Your task to perform on an android device: Search for a small bookcase on Ikea.com Image 0: 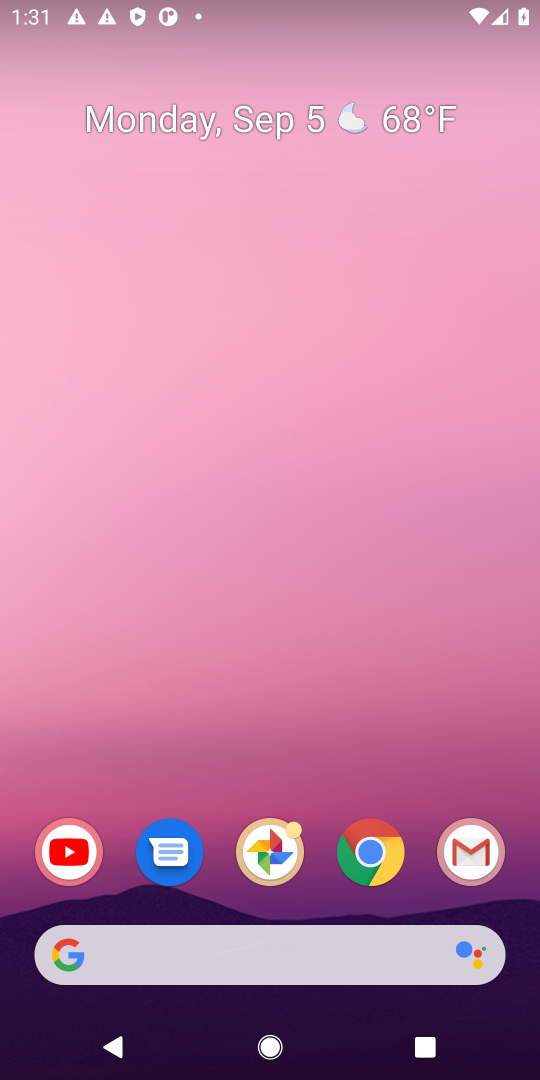
Step 0: click (375, 849)
Your task to perform on an android device: Search for a small bookcase on Ikea.com Image 1: 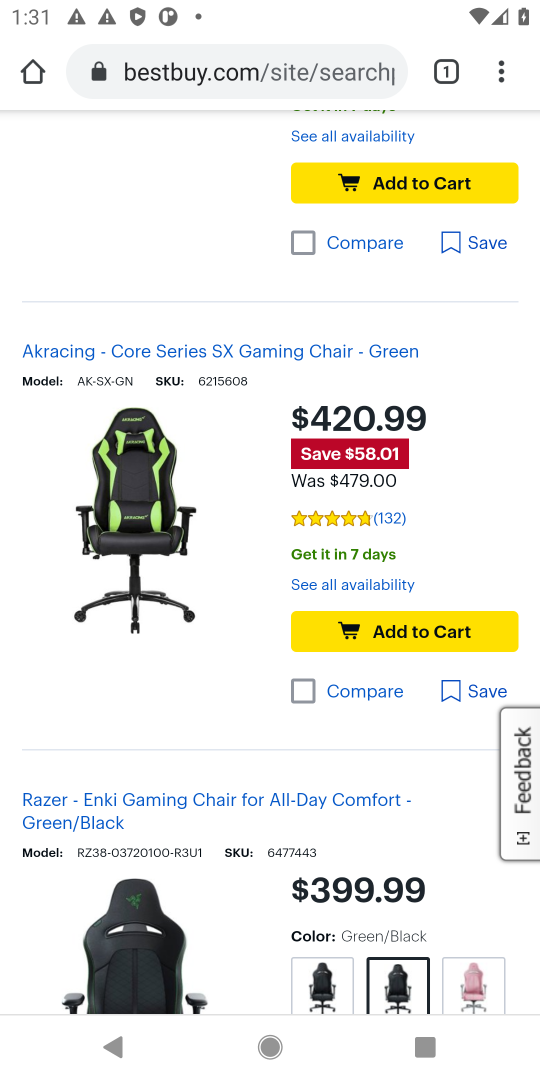
Step 1: click (264, 51)
Your task to perform on an android device: Search for a small bookcase on Ikea.com Image 2: 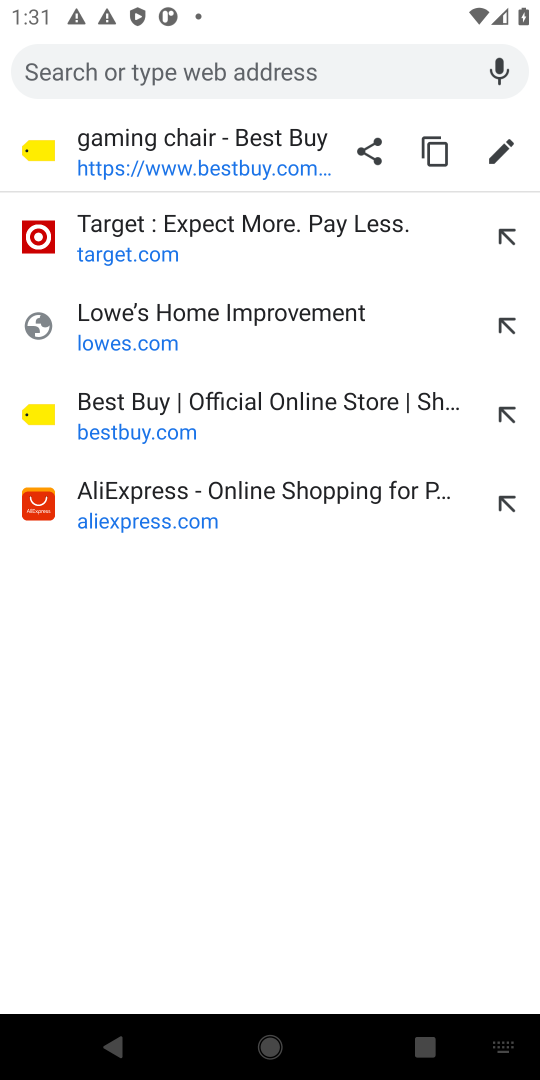
Step 2: type "Ikea.com"
Your task to perform on an android device: Search for a small bookcase on Ikea.com Image 3: 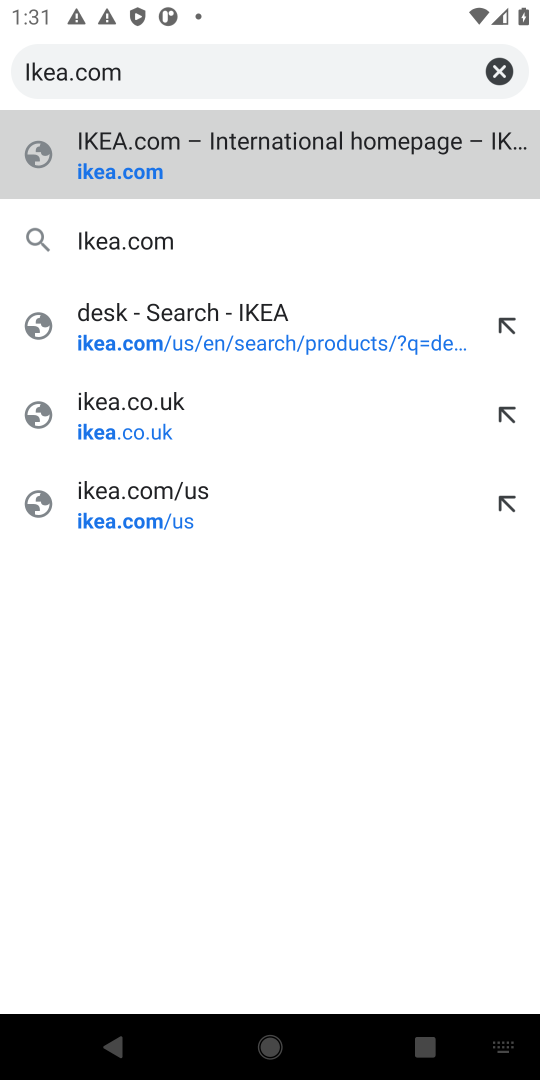
Step 3: click (107, 145)
Your task to perform on an android device: Search for a small bookcase on Ikea.com Image 4: 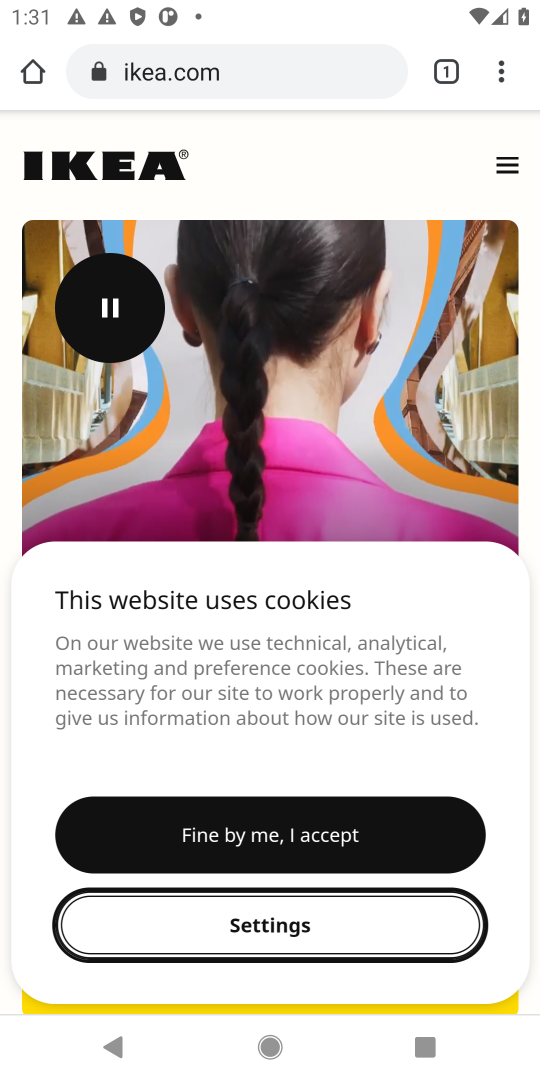
Step 4: click (245, 837)
Your task to perform on an android device: Search for a small bookcase on Ikea.com Image 5: 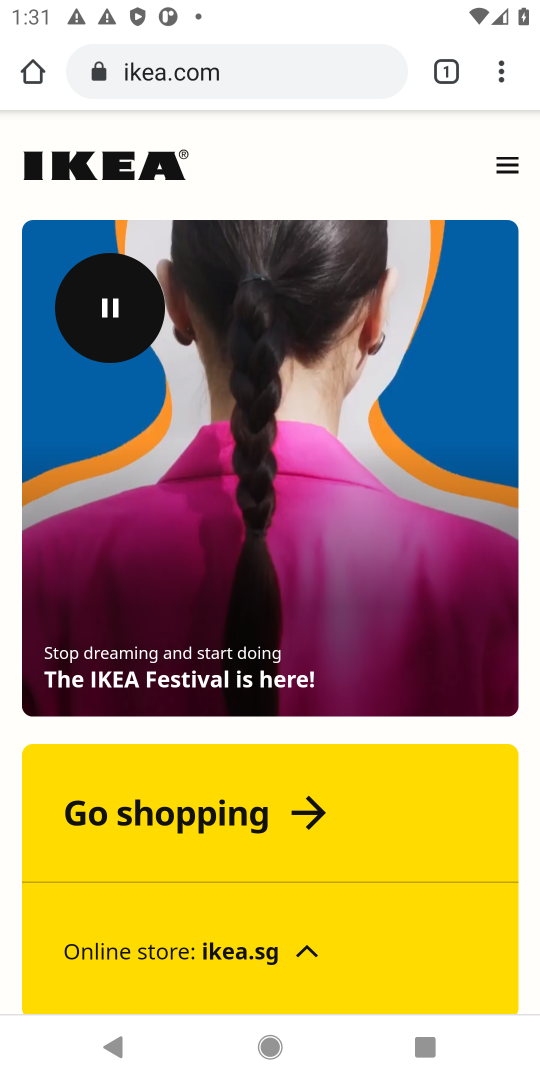
Step 5: click (189, 811)
Your task to perform on an android device: Search for a small bookcase on Ikea.com Image 6: 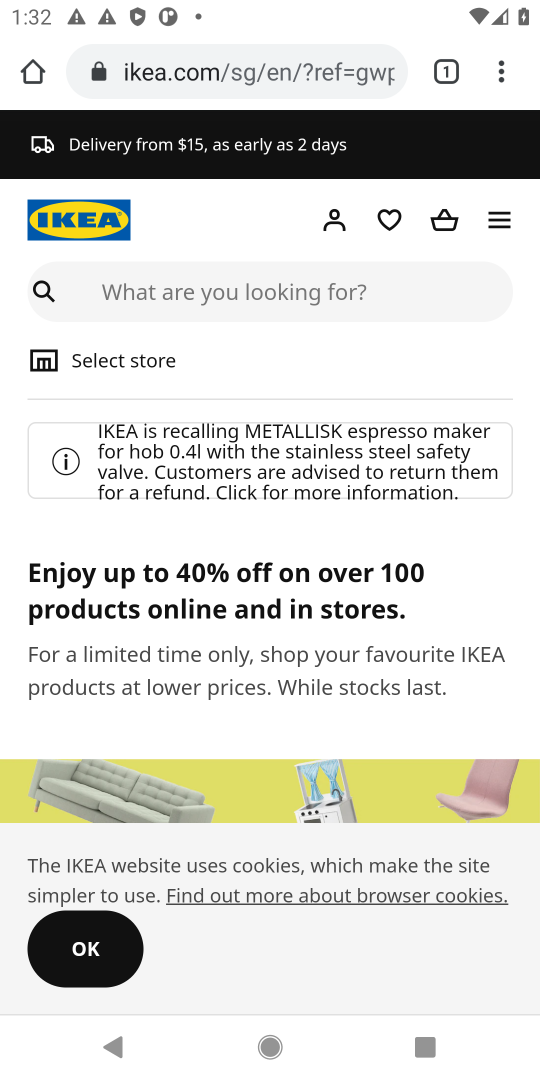
Step 6: click (149, 289)
Your task to perform on an android device: Search for a small bookcase on Ikea.com Image 7: 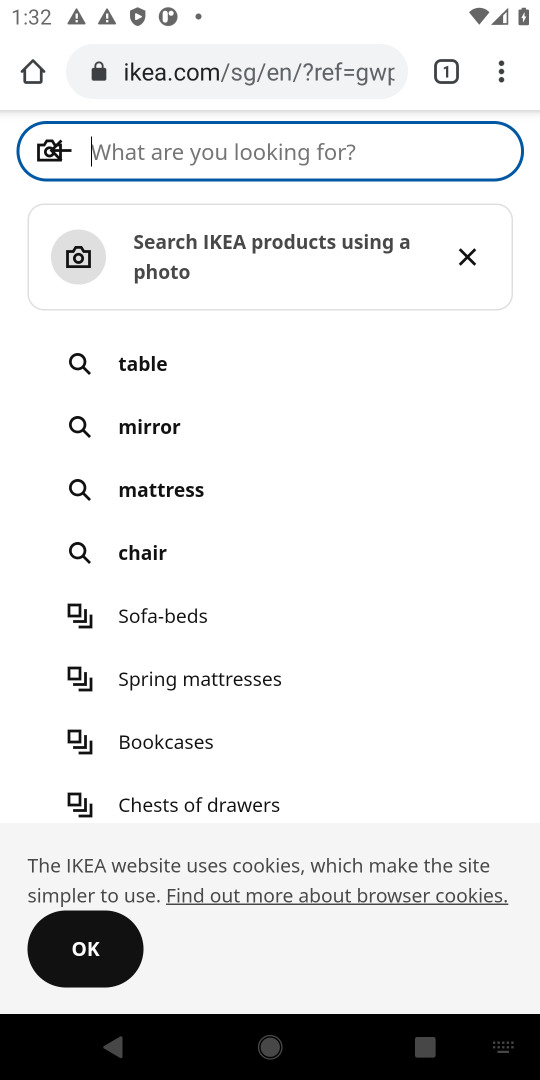
Step 7: type " small bookcase"
Your task to perform on an android device: Search for a small bookcase on Ikea.com Image 8: 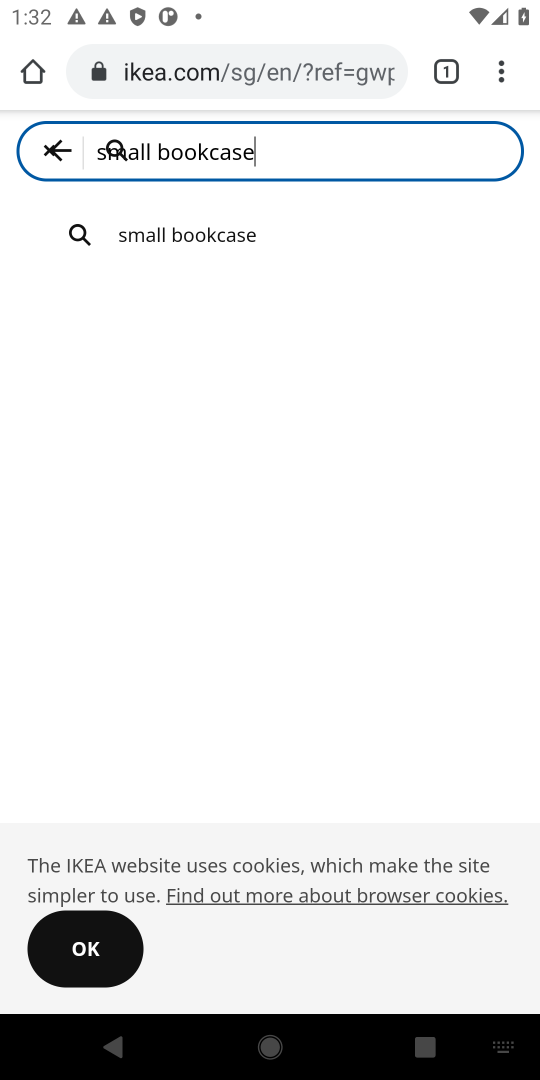
Step 8: click (154, 229)
Your task to perform on an android device: Search for a small bookcase on Ikea.com Image 9: 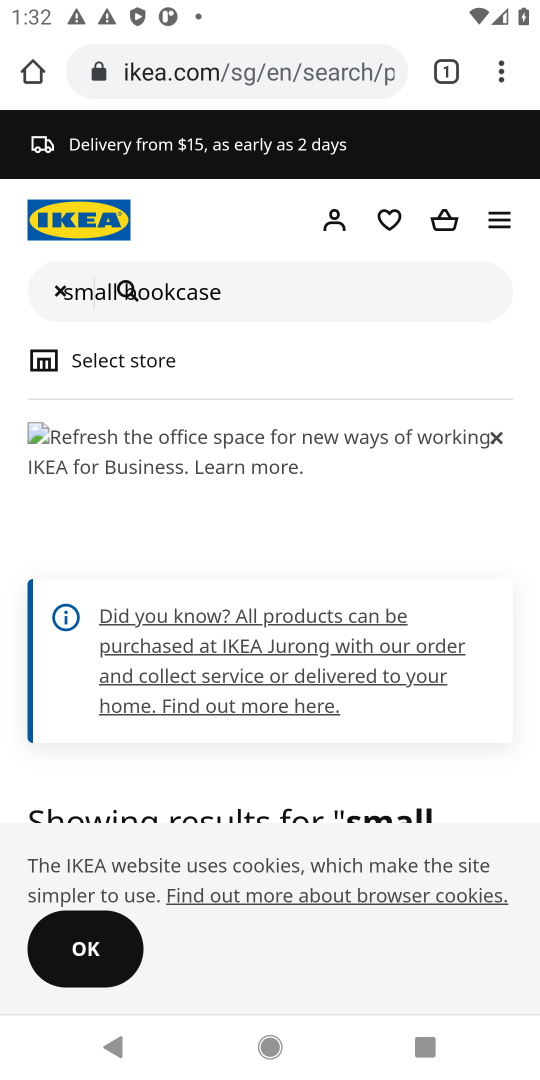
Step 9: click (88, 950)
Your task to perform on an android device: Search for a small bookcase on Ikea.com Image 10: 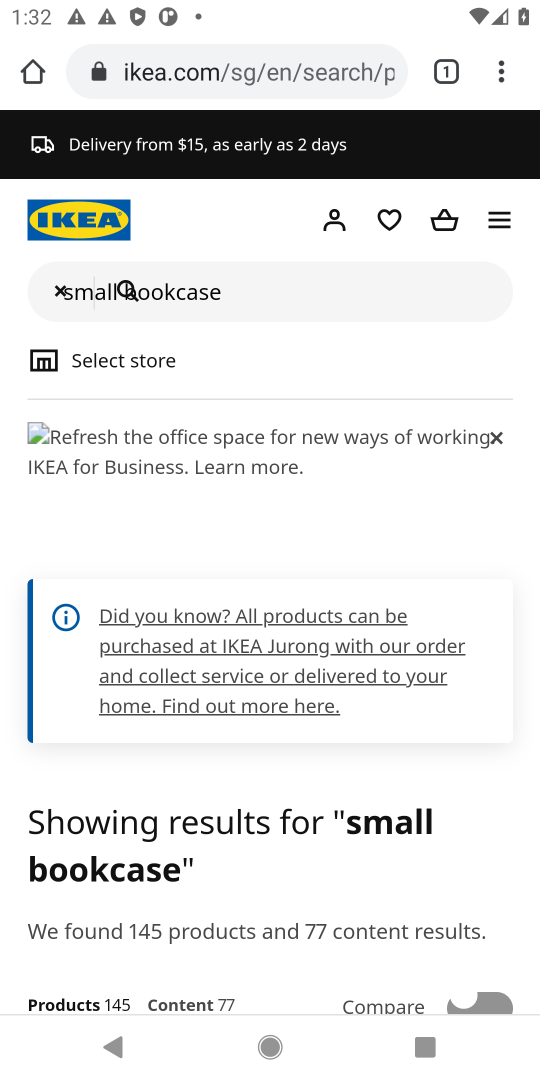
Step 10: task complete